Your task to perform on an android device: Google the capital of Panama Image 0: 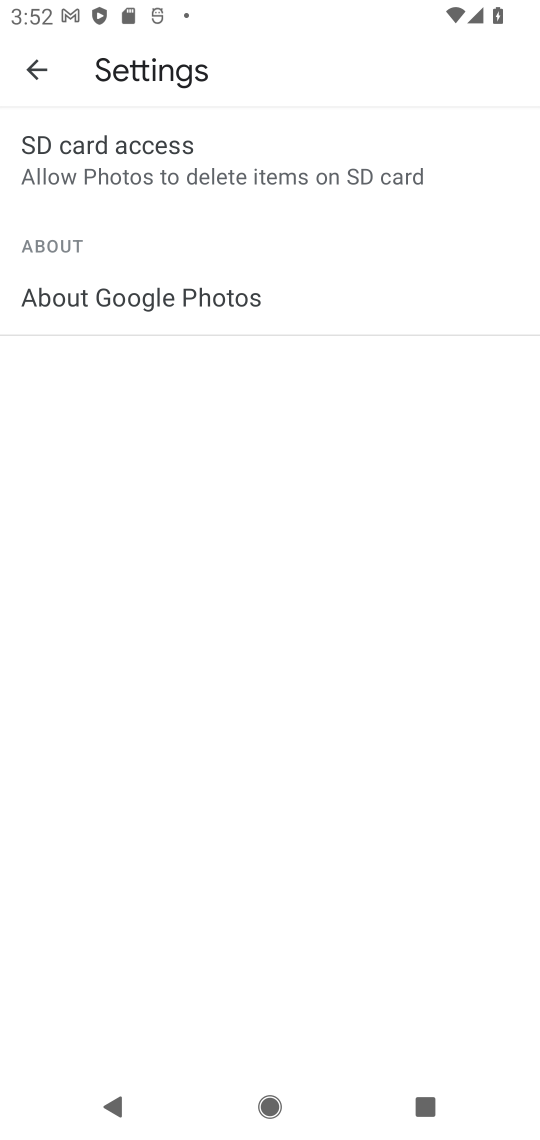
Step 0: press home button
Your task to perform on an android device: Google the capital of Panama Image 1: 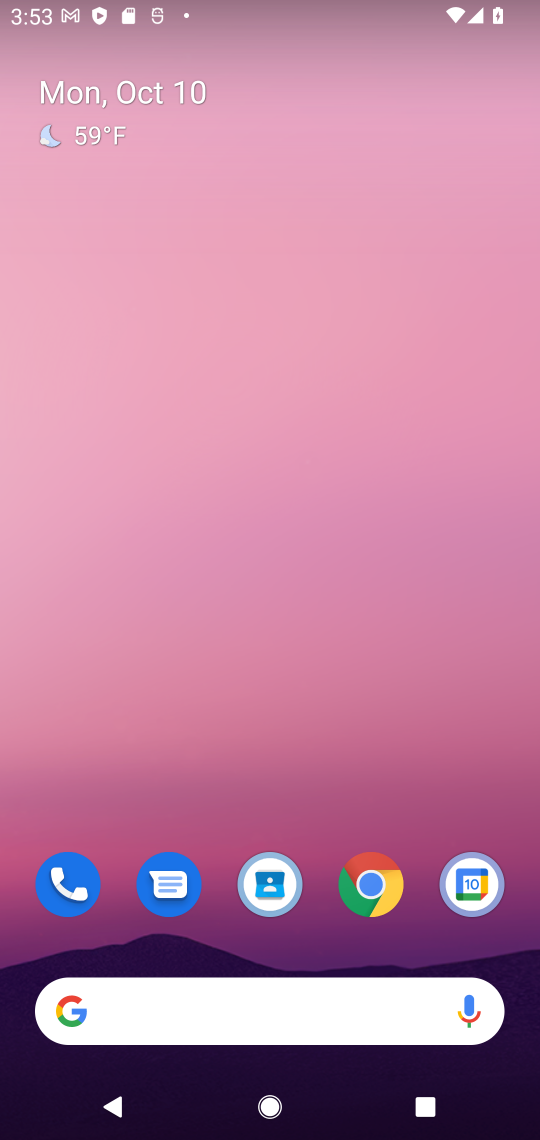
Step 1: click (239, 1007)
Your task to perform on an android device: Google the capital of Panama Image 2: 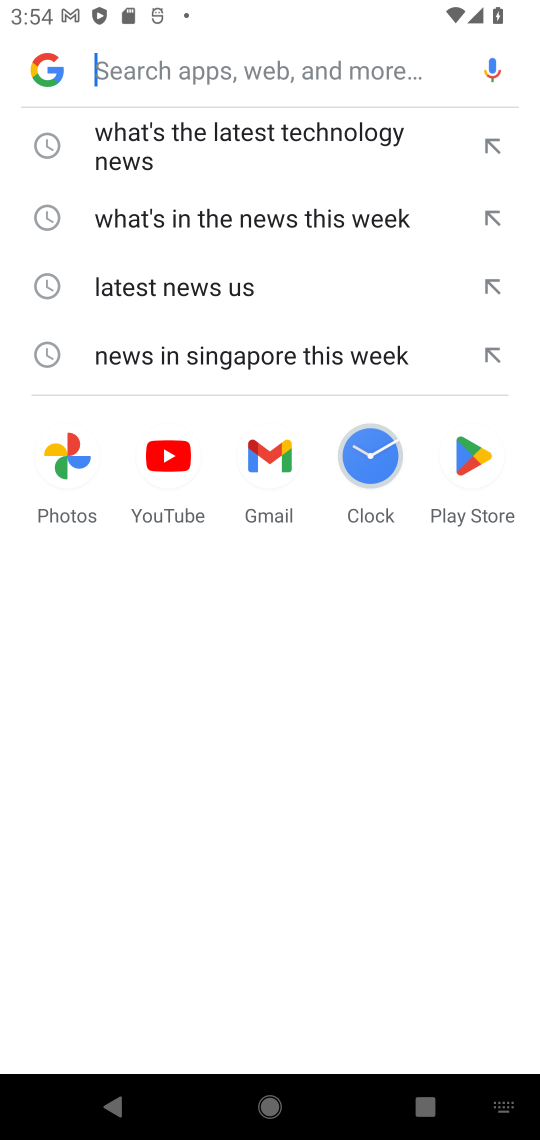
Step 2: type "the capital of Panama"
Your task to perform on an android device: Google the capital of Panama Image 3: 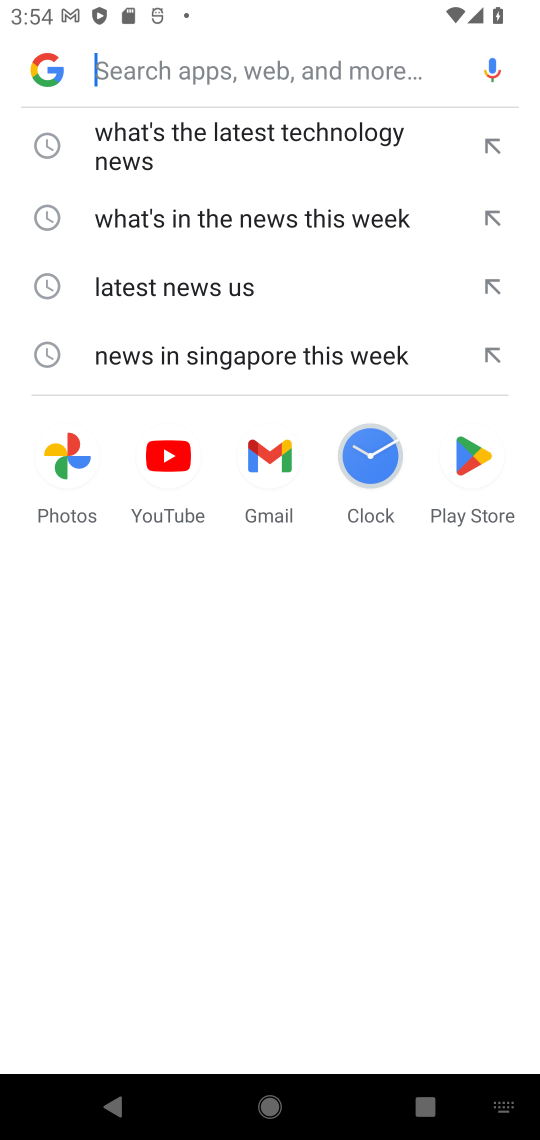
Step 3: click (182, 64)
Your task to perform on an android device: Google the capital of Panama Image 4: 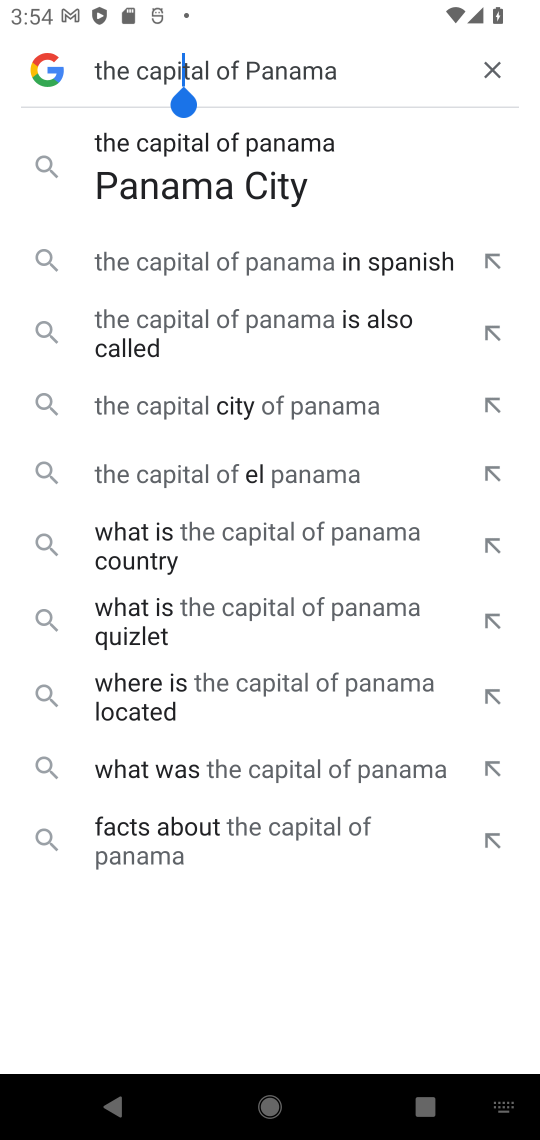
Step 4: type "the capital of Panama"
Your task to perform on an android device: Google the capital of Panama Image 5: 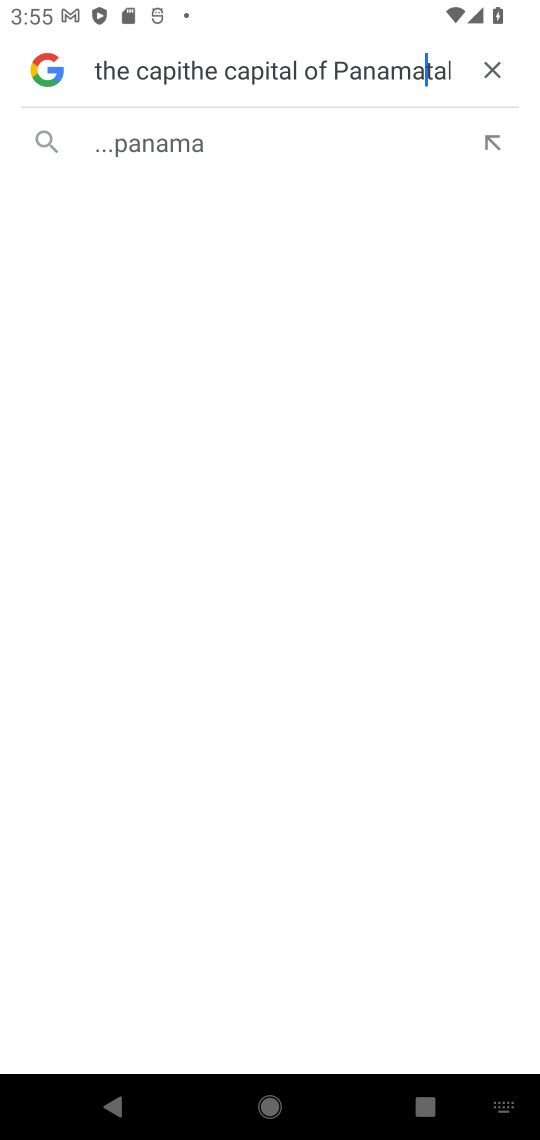
Step 5: click (492, 67)
Your task to perform on an android device: Google the capital of Panama Image 6: 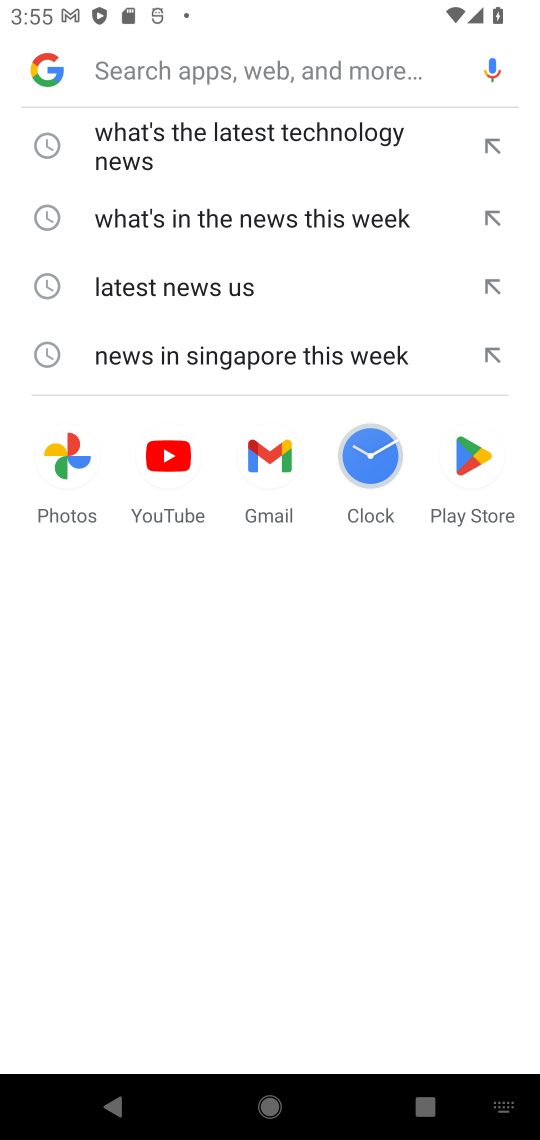
Step 6: type "the capital of Panama"
Your task to perform on an android device: Google the capital of Panama Image 7: 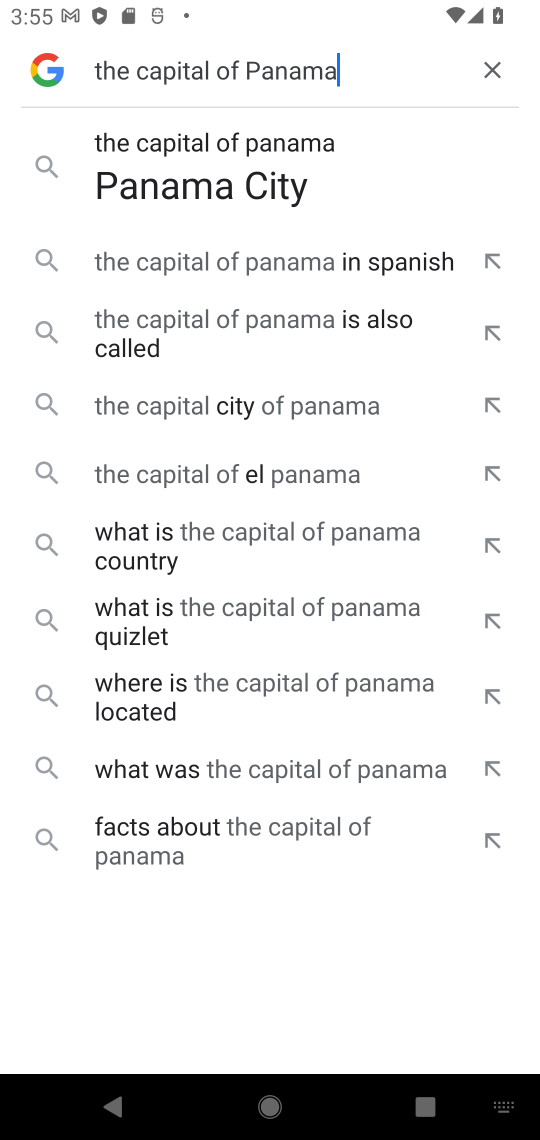
Step 7: click (192, 407)
Your task to perform on an android device: Google the capital of Panama Image 8: 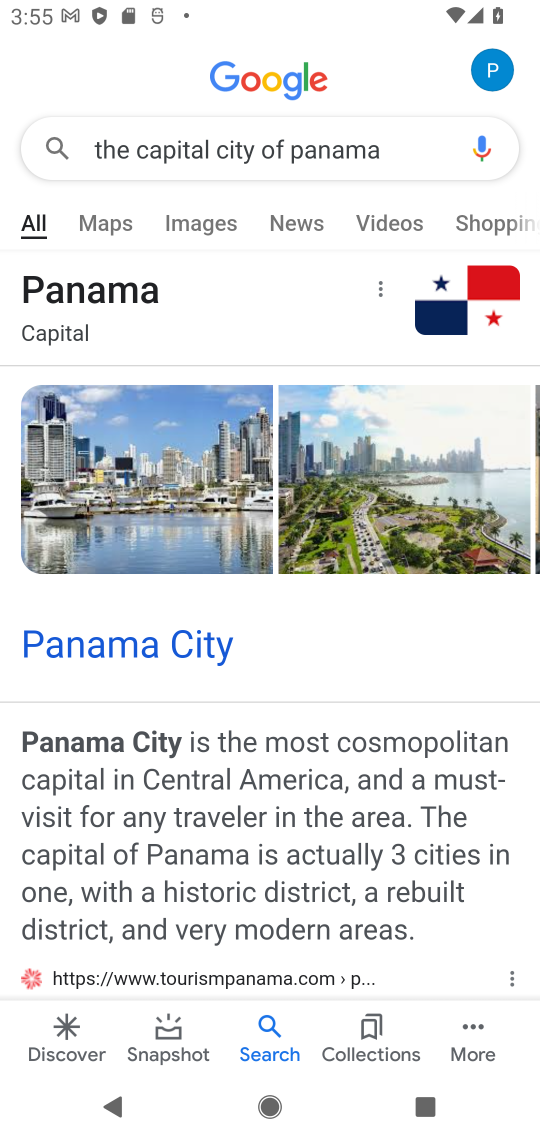
Step 8: drag from (209, 806) to (251, 1107)
Your task to perform on an android device: Google the capital of Panama Image 9: 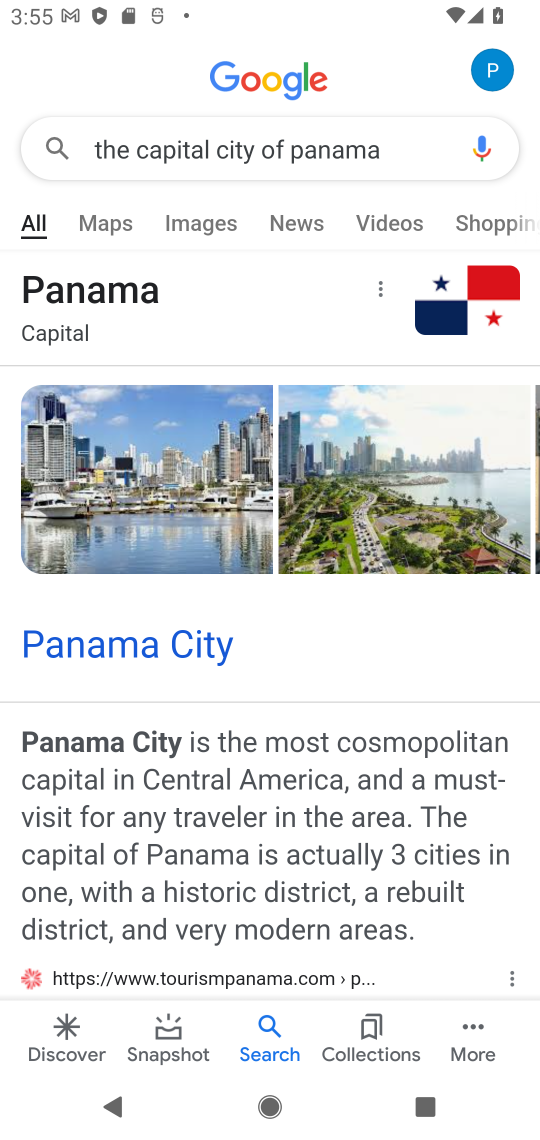
Step 9: click (302, 154)
Your task to perform on an android device: Google the capital of Panama Image 10: 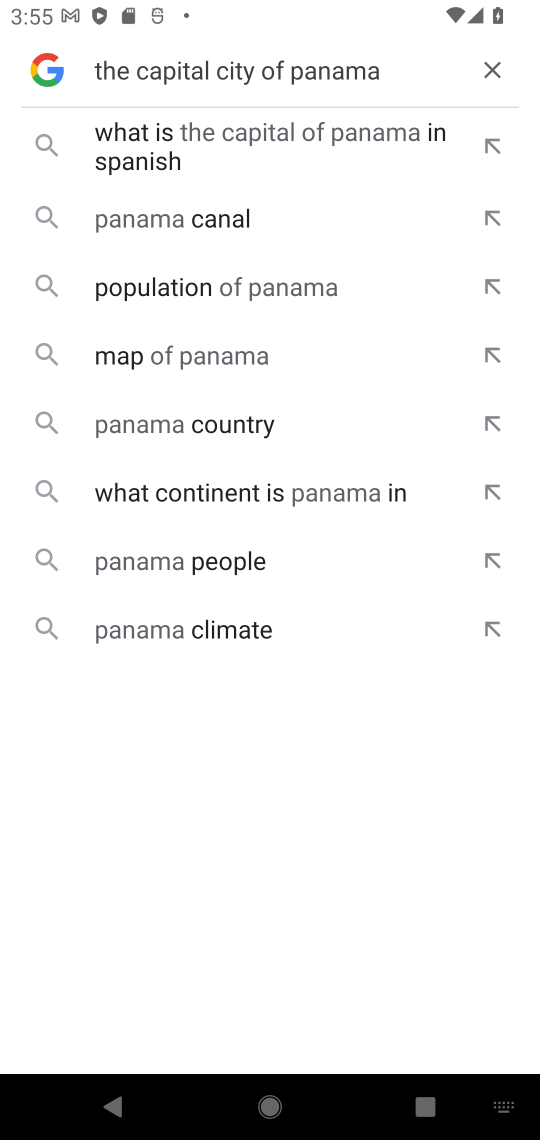
Step 10: click (494, 76)
Your task to perform on an android device: Google the capital of Panama Image 11: 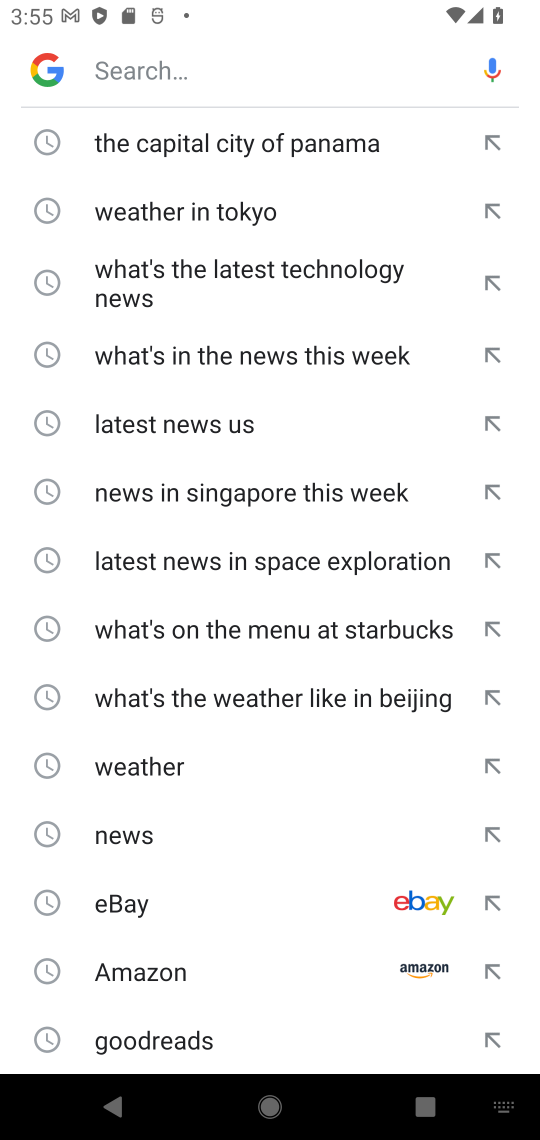
Step 11: type "the capital of Panama"
Your task to perform on an android device: Google the capital of Panama Image 12: 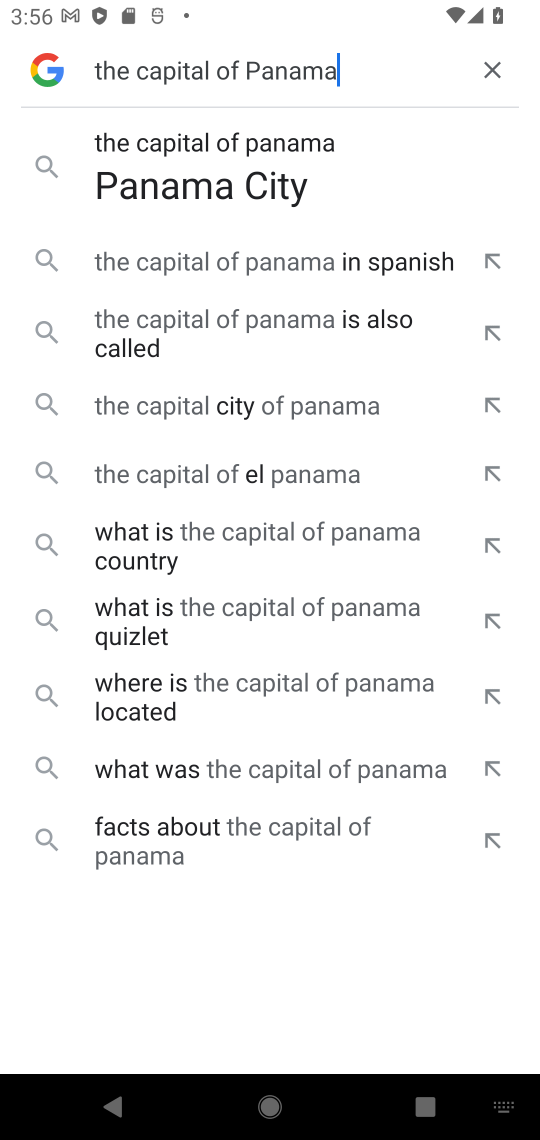
Step 12: click (196, 149)
Your task to perform on an android device: Google the capital of Panama Image 13: 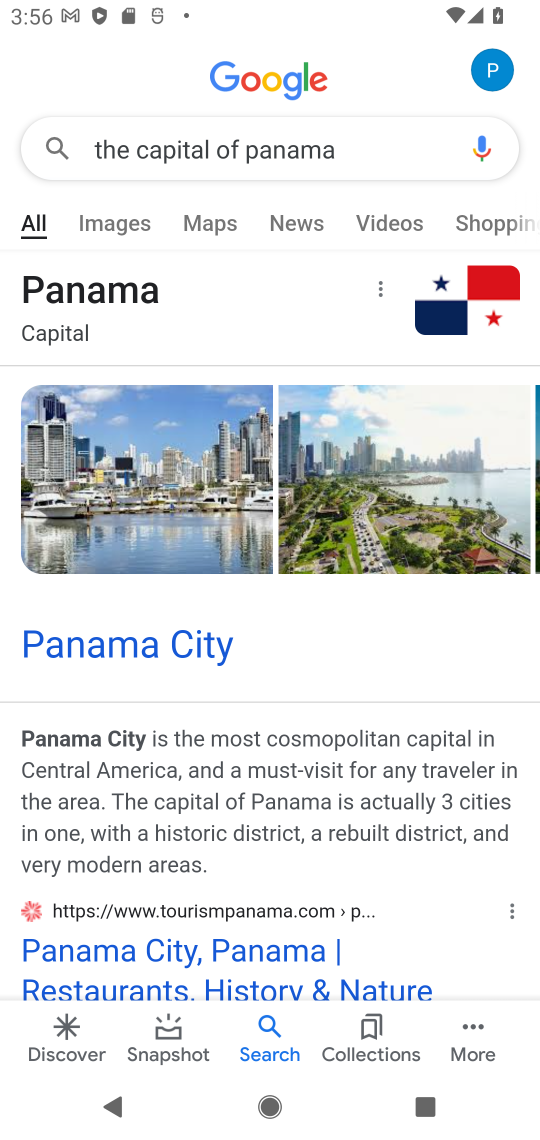
Step 13: click (172, 649)
Your task to perform on an android device: Google the capital of Panama Image 14: 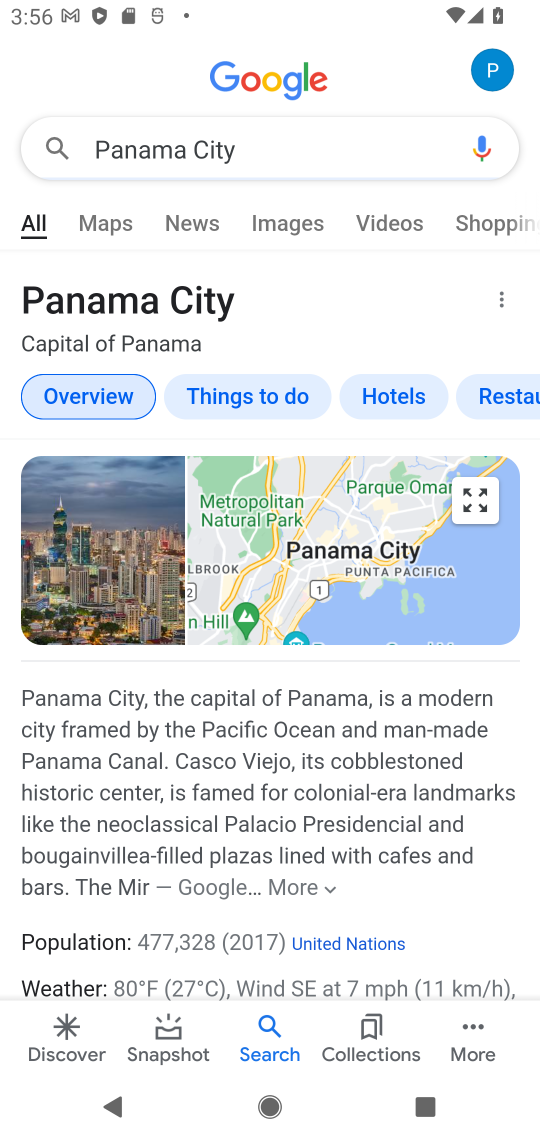
Step 14: task complete